Your task to perform on an android device: open chrome privacy settings Image 0: 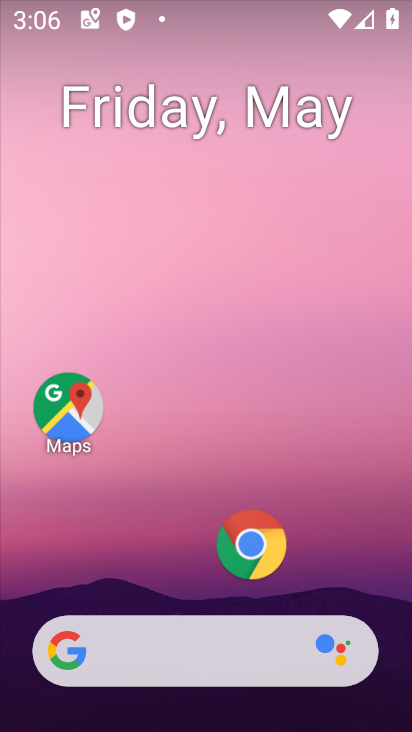
Step 0: click (242, 540)
Your task to perform on an android device: open chrome privacy settings Image 1: 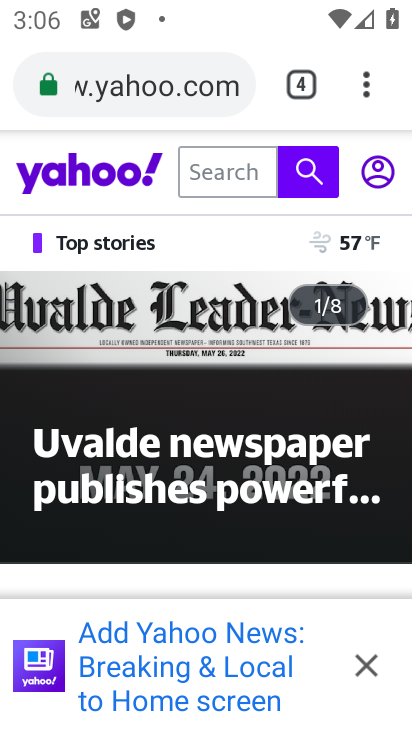
Step 1: click (374, 84)
Your task to perform on an android device: open chrome privacy settings Image 2: 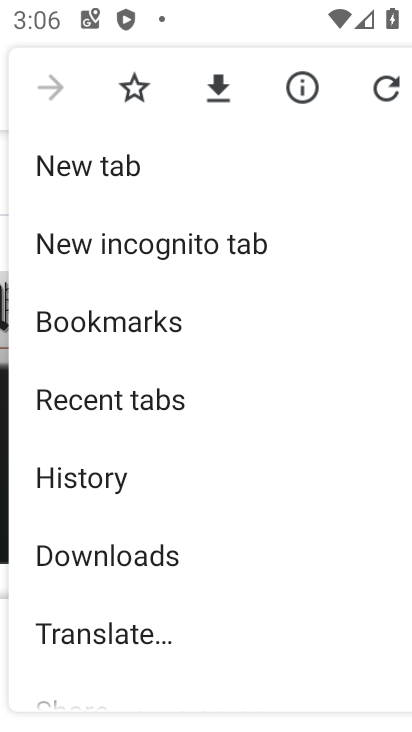
Step 2: drag from (227, 644) to (232, 319)
Your task to perform on an android device: open chrome privacy settings Image 3: 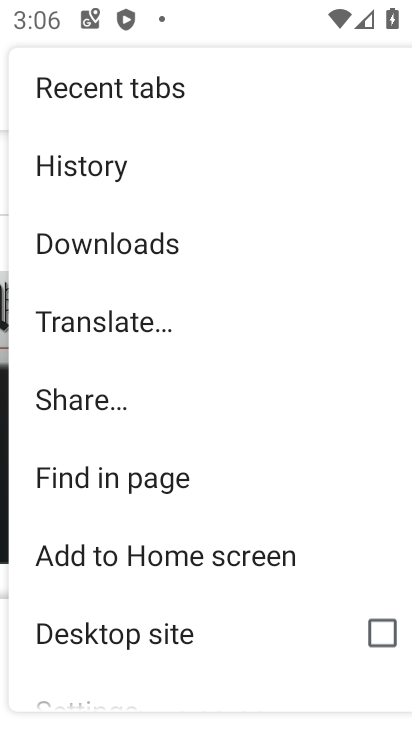
Step 3: drag from (214, 602) to (252, 287)
Your task to perform on an android device: open chrome privacy settings Image 4: 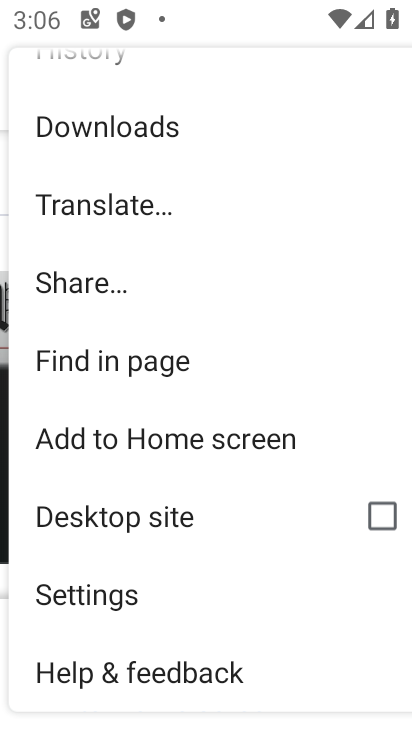
Step 4: click (169, 586)
Your task to perform on an android device: open chrome privacy settings Image 5: 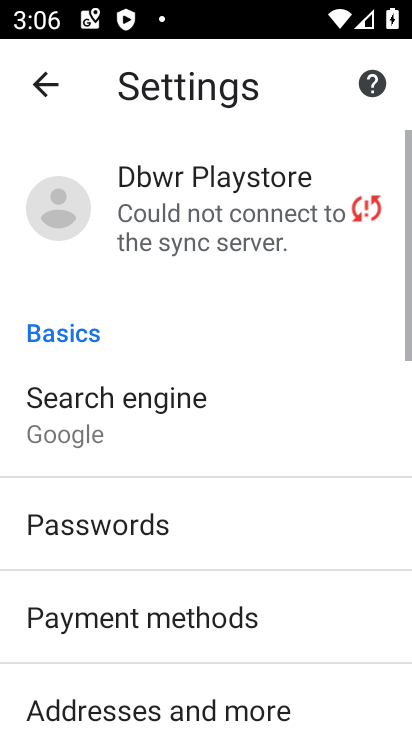
Step 5: drag from (169, 586) to (195, 266)
Your task to perform on an android device: open chrome privacy settings Image 6: 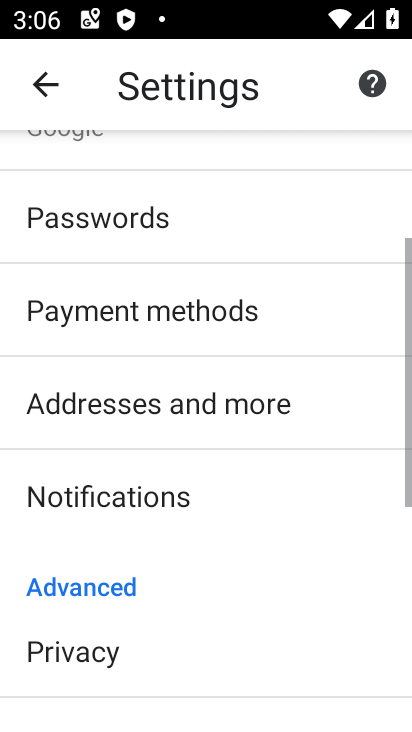
Step 6: drag from (209, 413) to (209, 280)
Your task to perform on an android device: open chrome privacy settings Image 7: 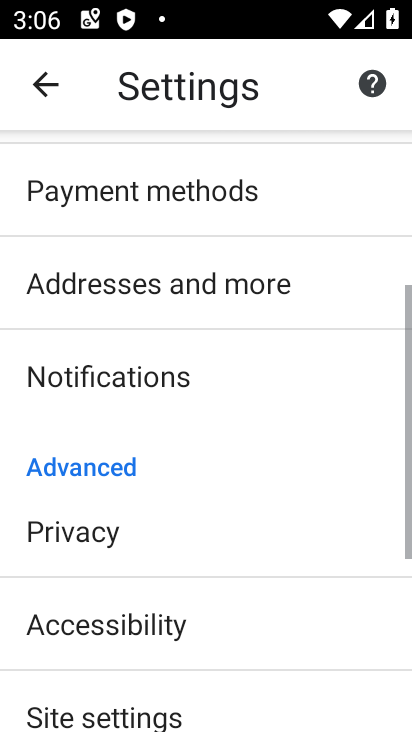
Step 7: drag from (192, 511) to (203, 292)
Your task to perform on an android device: open chrome privacy settings Image 8: 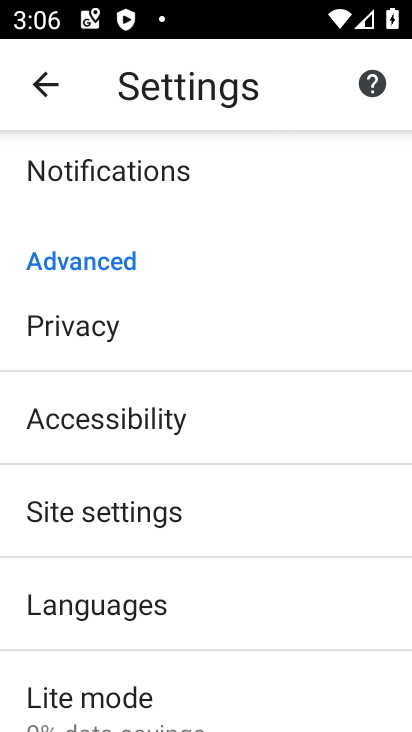
Step 8: click (105, 345)
Your task to perform on an android device: open chrome privacy settings Image 9: 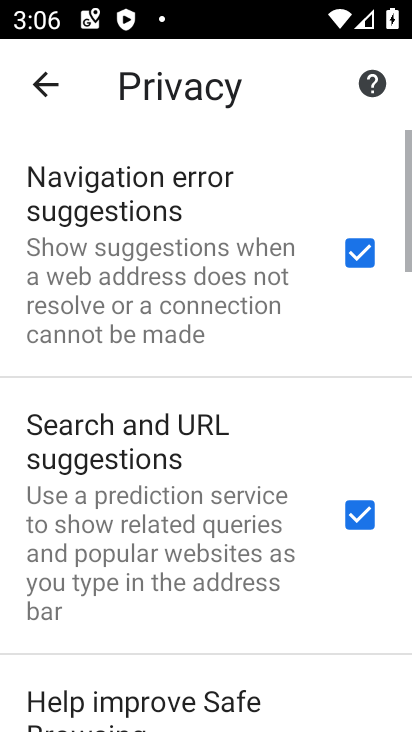
Step 9: task complete